Your task to perform on an android device: Open calendar and show me the fourth week of next month Image 0: 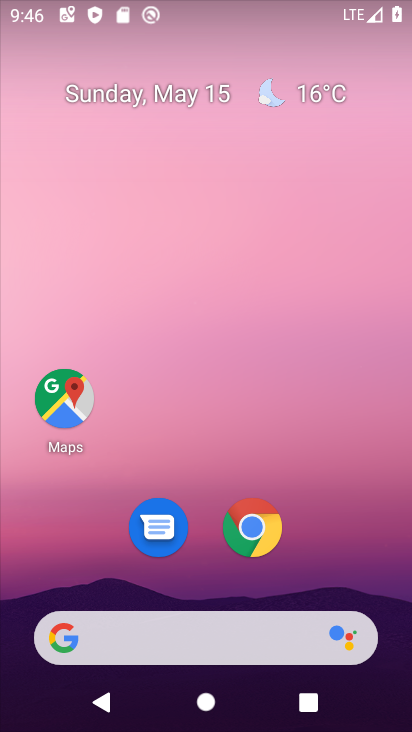
Step 0: drag from (381, 593) to (381, 10)
Your task to perform on an android device: Open calendar and show me the fourth week of next month Image 1: 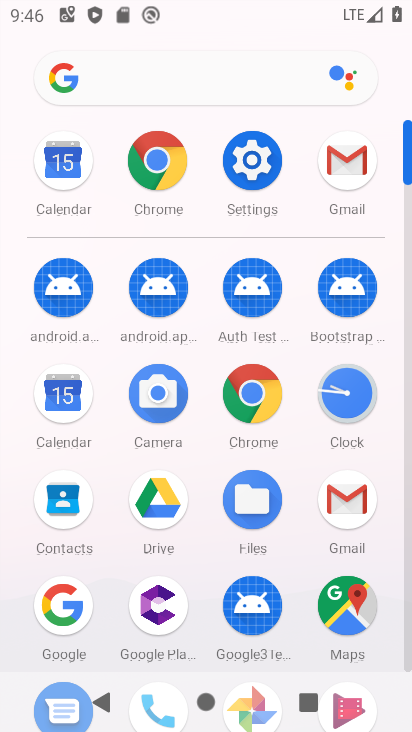
Step 1: click (65, 168)
Your task to perform on an android device: Open calendar and show me the fourth week of next month Image 2: 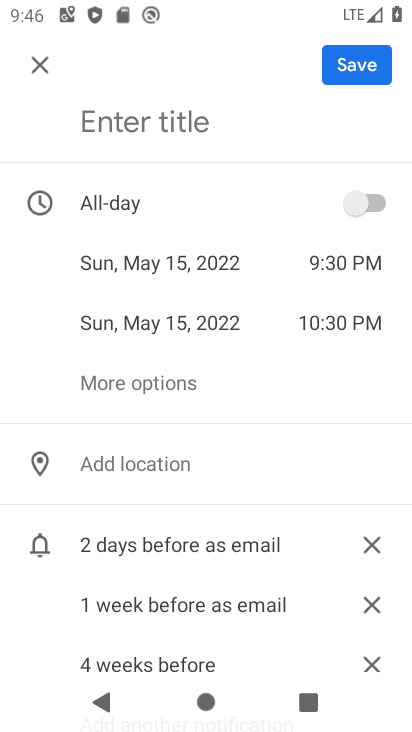
Step 2: click (37, 74)
Your task to perform on an android device: Open calendar and show me the fourth week of next month Image 3: 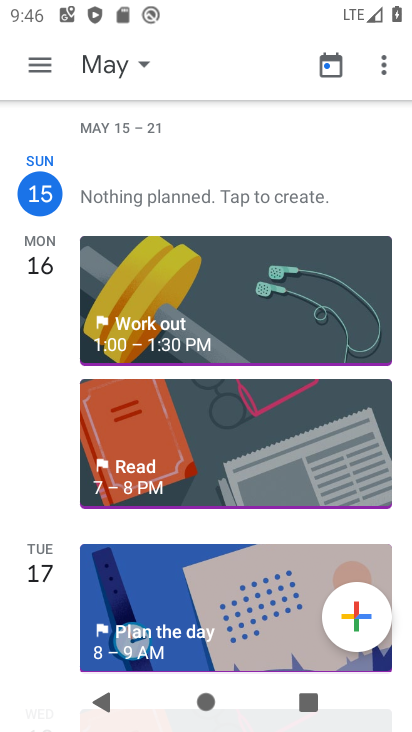
Step 3: click (149, 71)
Your task to perform on an android device: Open calendar and show me the fourth week of next month Image 4: 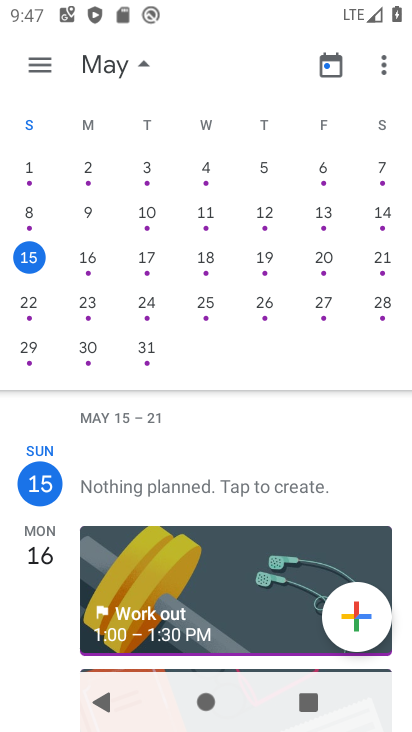
Step 4: drag from (387, 212) to (0, 151)
Your task to perform on an android device: Open calendar and show me the fourth week of next month Image 5: 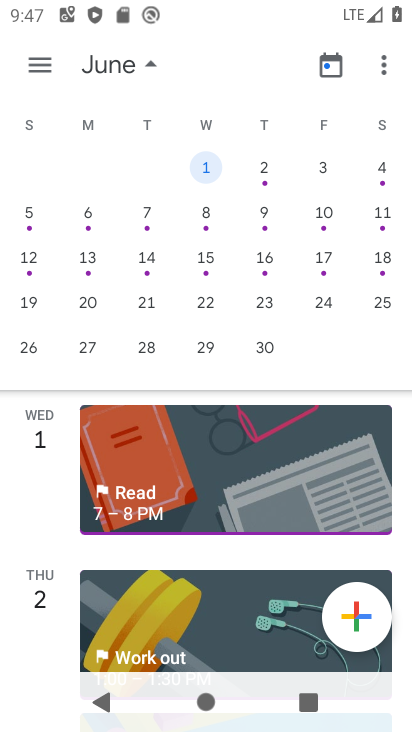
Step 5: click (43, 63)
Your task to perform on an android device: Open calendar and show me the fourth week of next month Image 6: 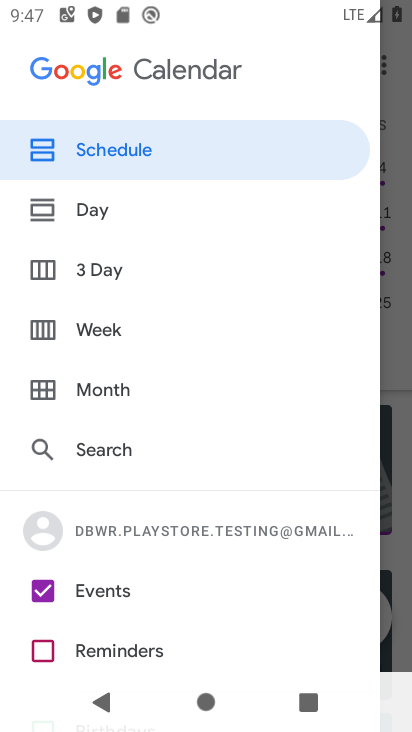
Step 6: click (110, 335)
Your task to perform on an android device: Open calendar and show me the fourth week of next month Image 7: 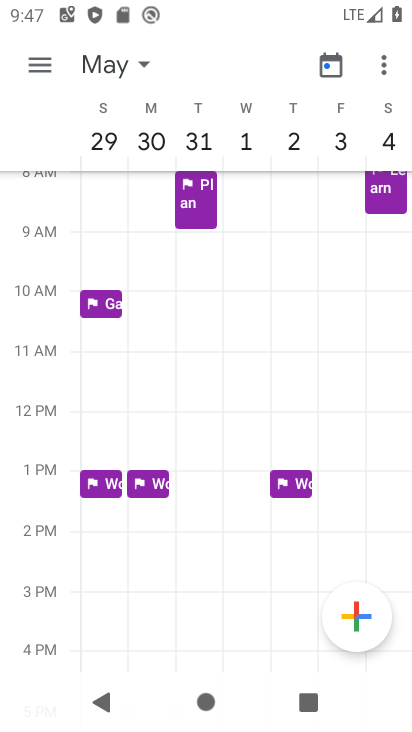
Step 7: task complete